Your task to perform on an android device: Open battery settings Image 0: 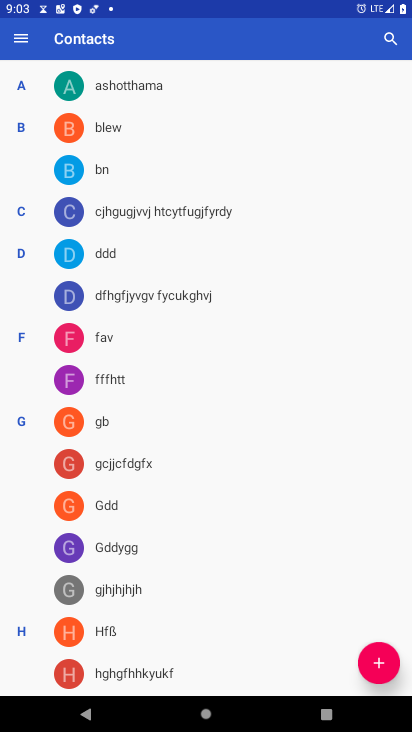
Step 0: press home button
Your task to perform on an android device: Open battery settings Image 1: 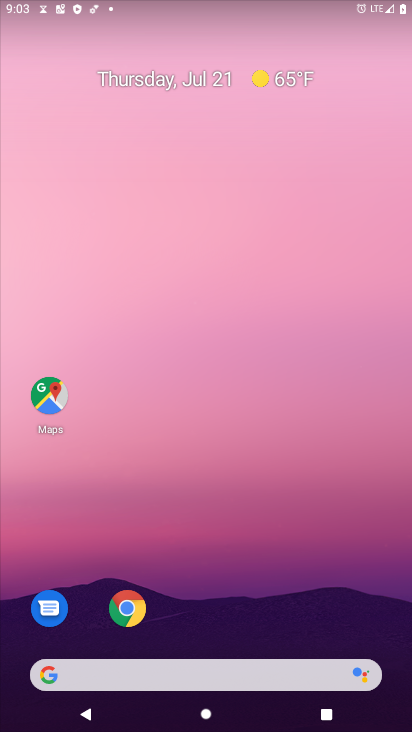
Step 1: drag from (201, 670) to (302, 7)
Your task to perform on an android device: Open battery settings Image 2: 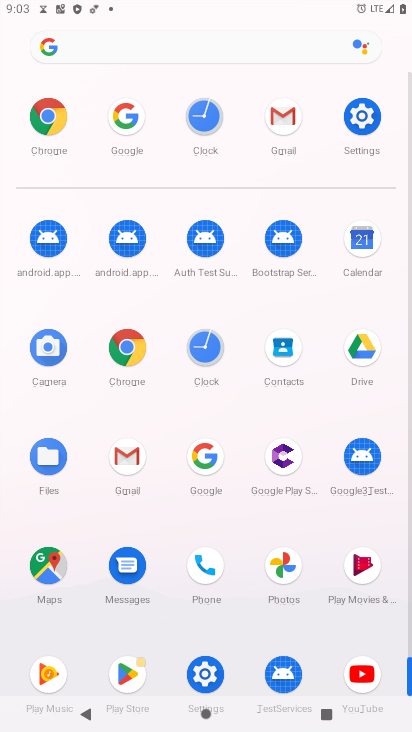
Step 2: click (361, 117)
Your task to perform on an android device: Open battery settings Image 3: 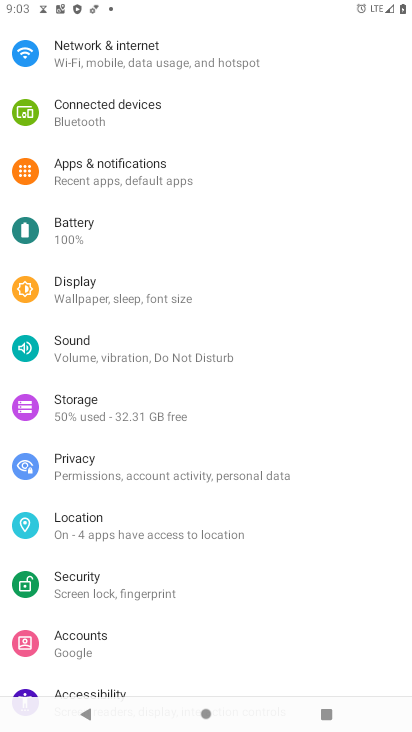
Step 3: click (81, 227)
Your task to perform on an android device: Open battery settings Image 4: 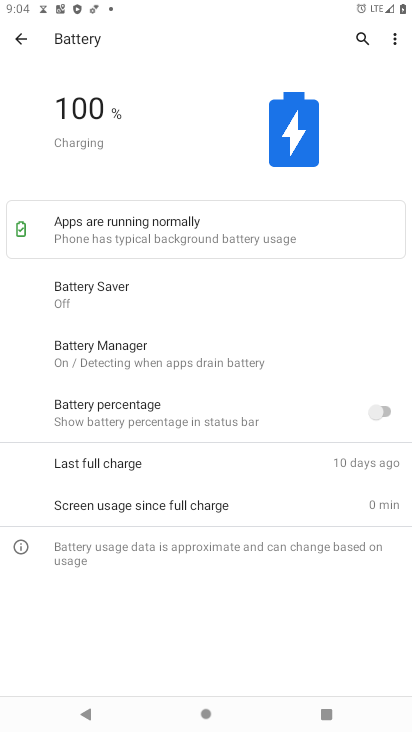
Step 4: task complete